Your task to perform on an android device: toggle show notifications on the lock screen Image 0: 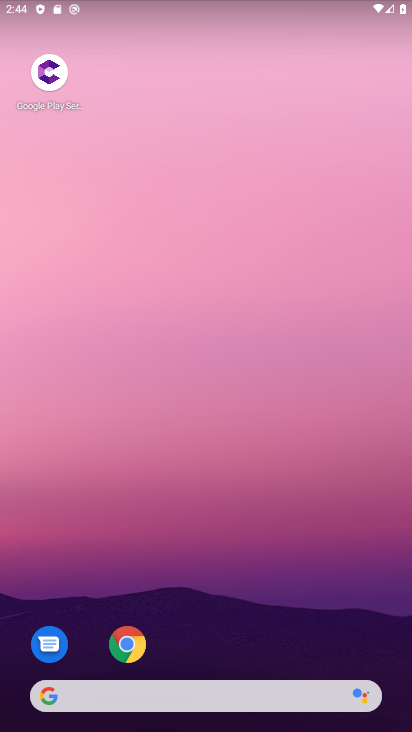
Step 0: drag from (220, 688) to (309, 287)
Your task to perform on an android device: toggle show notifications on the lock screen Image 1: 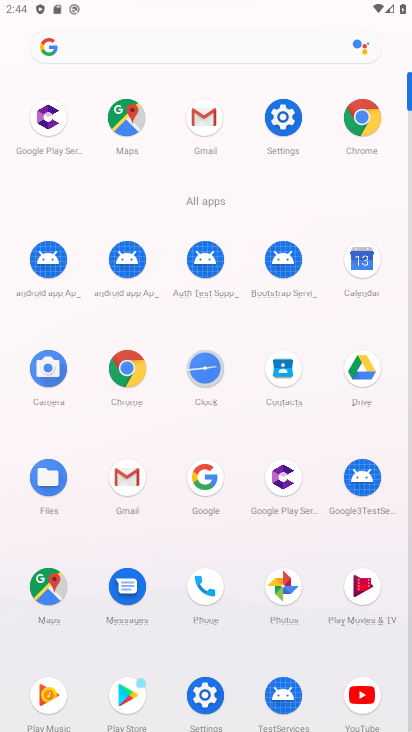
Step 1: click (284, 115)
Your task to perform on an android device: toggle show notifications on the lock screen Image 2: 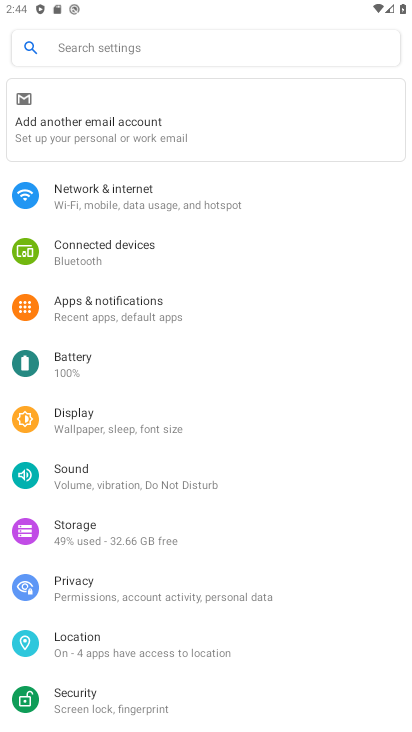
Step 2: click (130, 310)
Your task to perform on an android device: toggle show notifications on the lock screen Image 3: 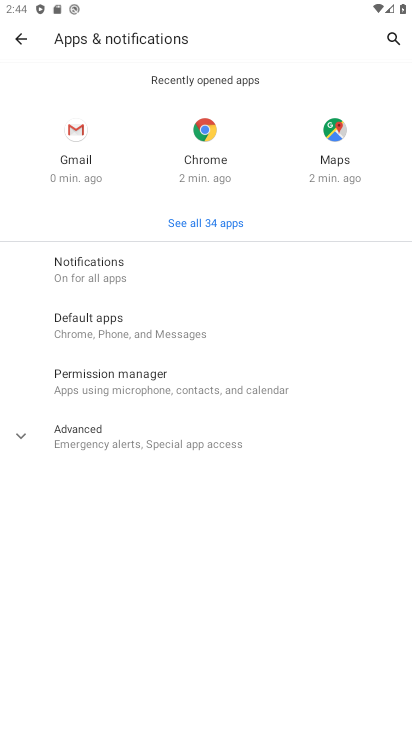
Step 3: click (91, 276)
Your task to perform on an android device: toggle show notifications on the lock screen Image 4: 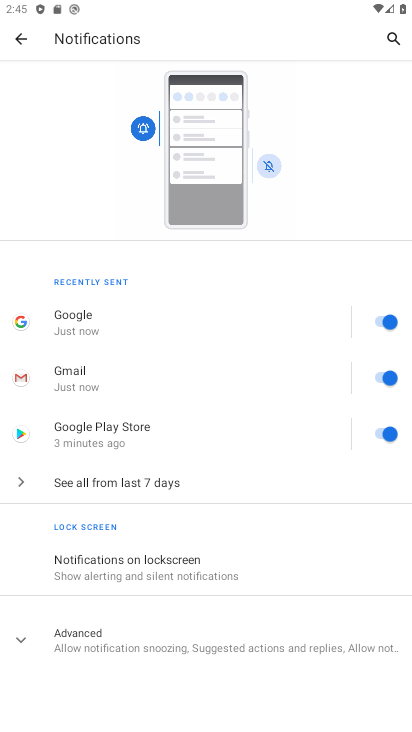
Step 4: click (192, 570)
Your task to perform on an android device: toggle show notifications on the lock screen Image 5: 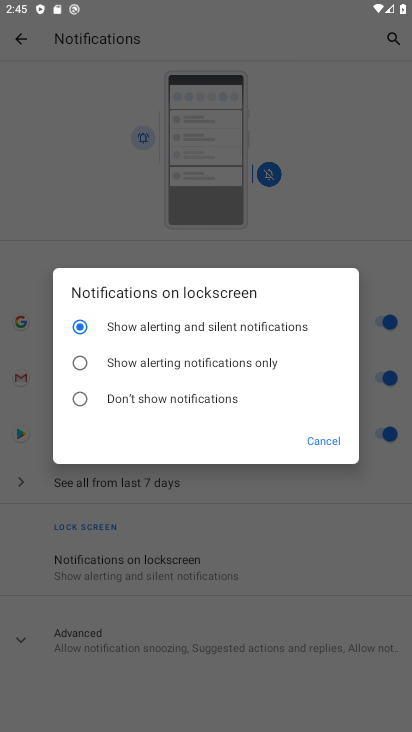
Step 5: click (82, 396)
Your task to perform on an android device: toggle show notifications on the lock screen Image 6: 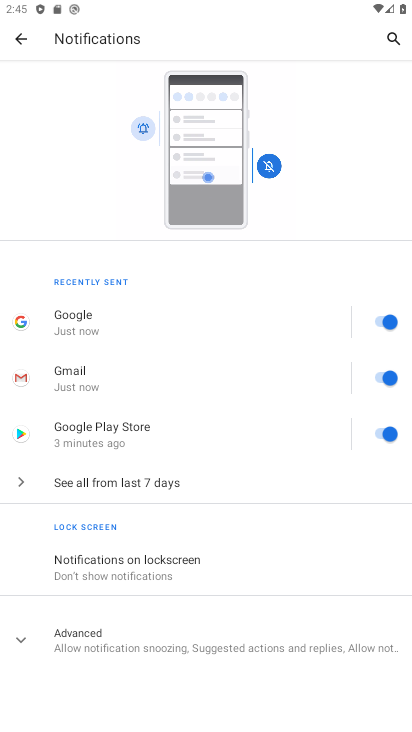
Step 6: task complete